Your task to perform on an android device: create a new album in the google photos Image 0: 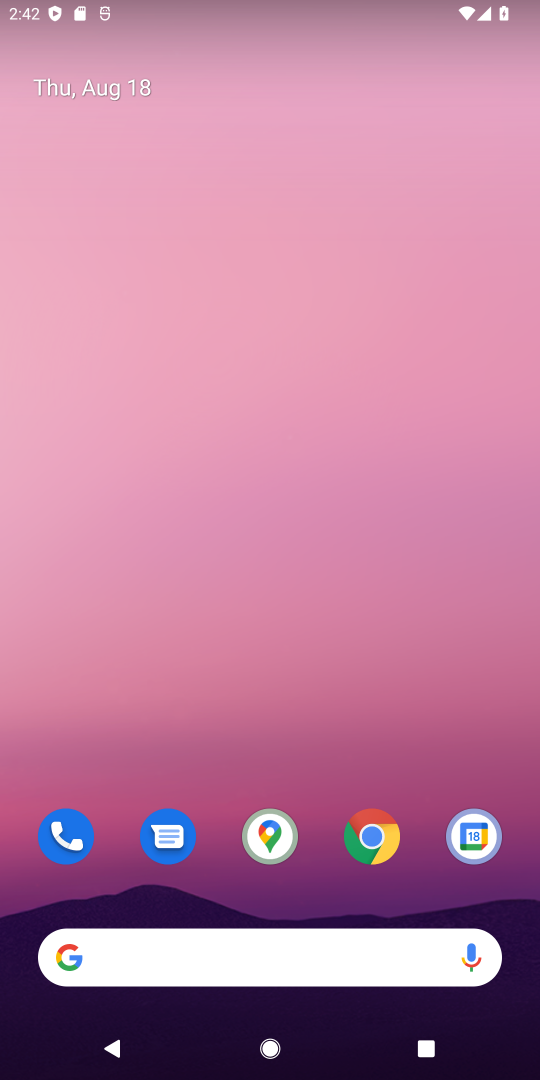
Step 0: drag from (322, 943) to (282, 294)
Your task to perform on an android device: create a new album in the google photos Image 1: 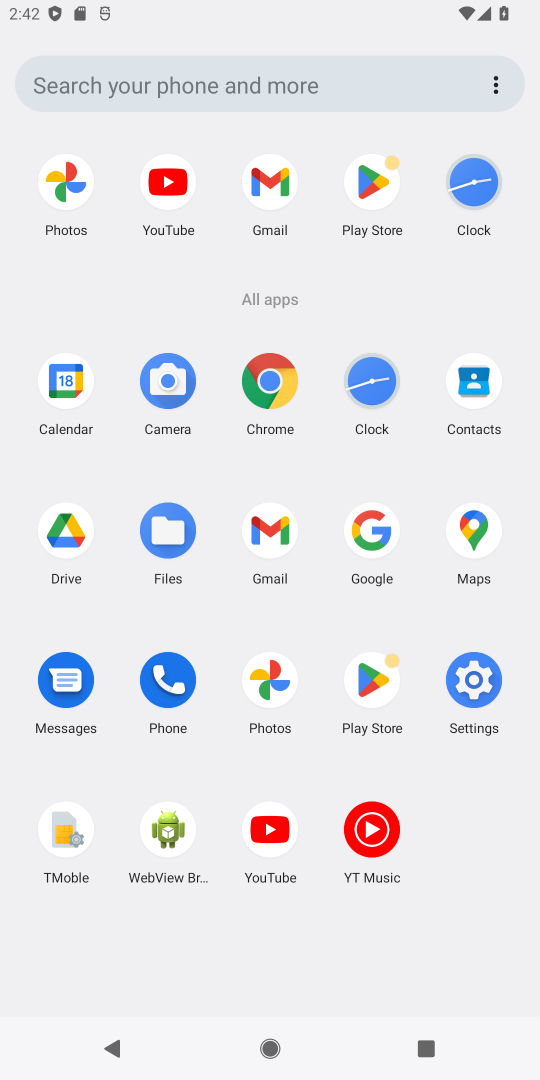
Step 1: click (263, 680)
Your task to perform on an android device: create a new album in the google photos Image 2: 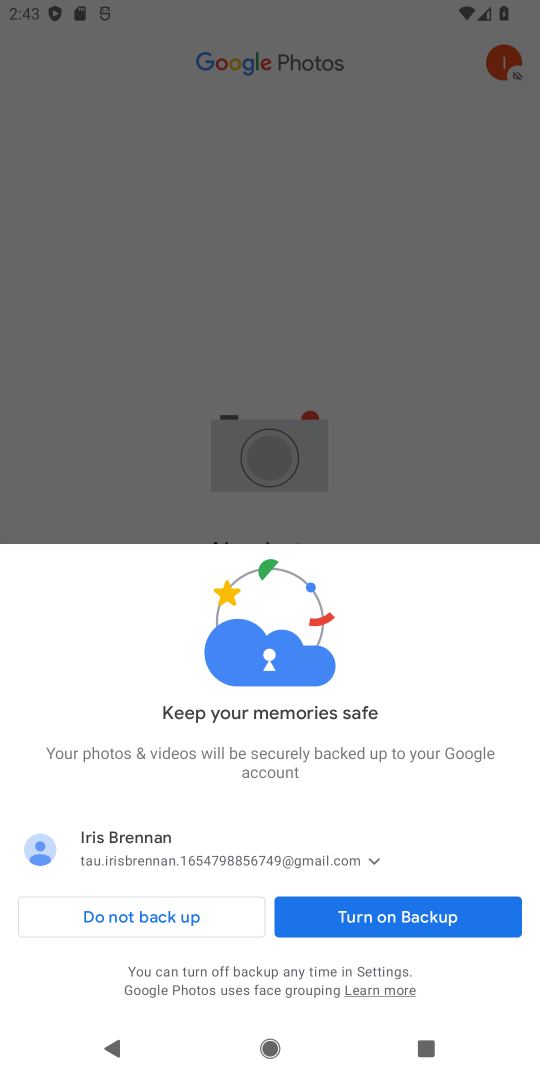
Step 2: click (162, 914)
Your task to perform on an android device: create a new album in the google photos Image 3: 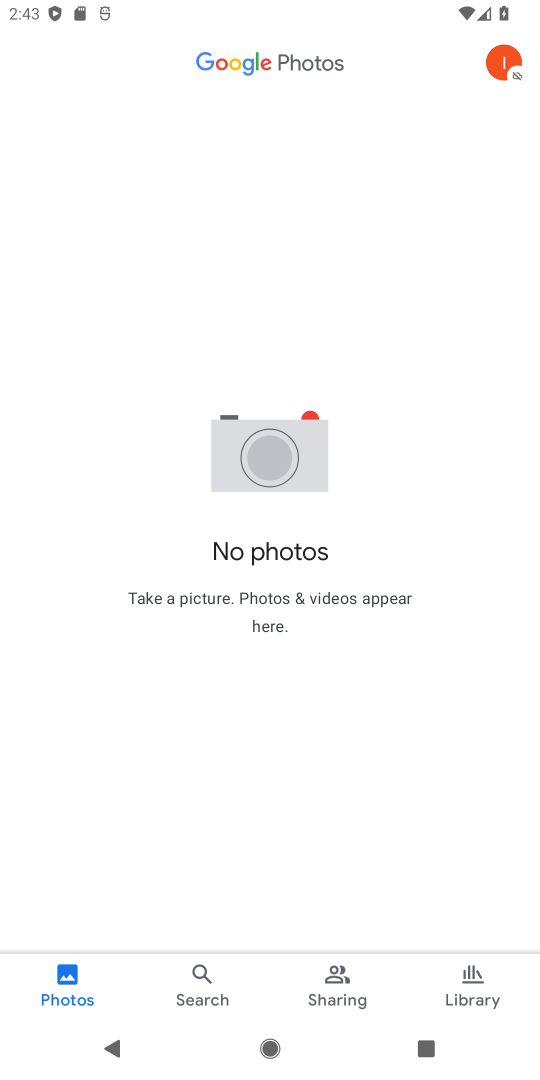
Step 3: task complete